Your task to perform on an android device: Open privacy settings Image 0: 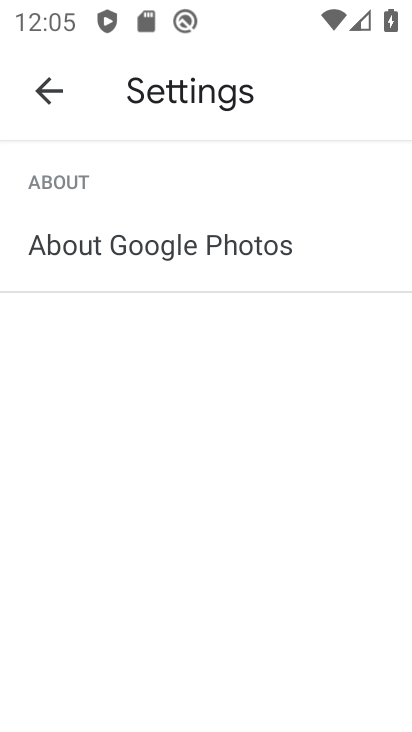
Step 0: click (49, 86)
Your task to perform on an android device: Open privacy settings Image 1: 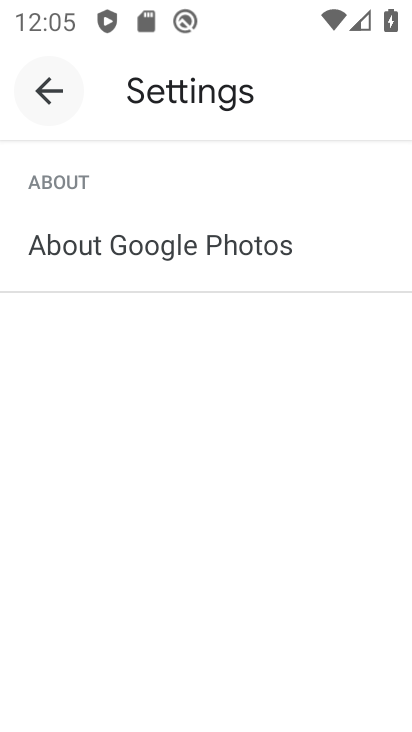
Step 1: click (51, 88)
Your task to perform on an android device: Open privacy settings Image 2: 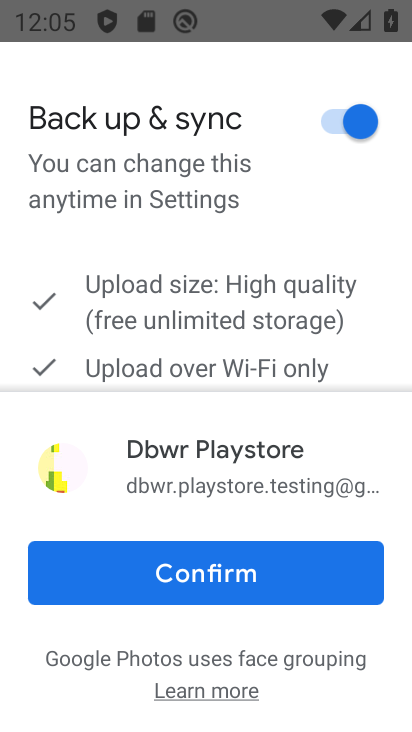
Step 2: click (226, 576)
Your task to perform on an android device: Open privacy settings Image 3: 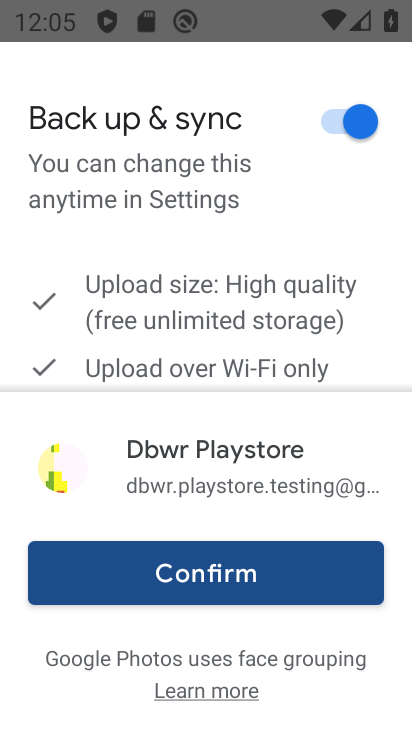
Step 3: click (224, 572)
Your task to perform on an android device: Open privacy settings Image 4: 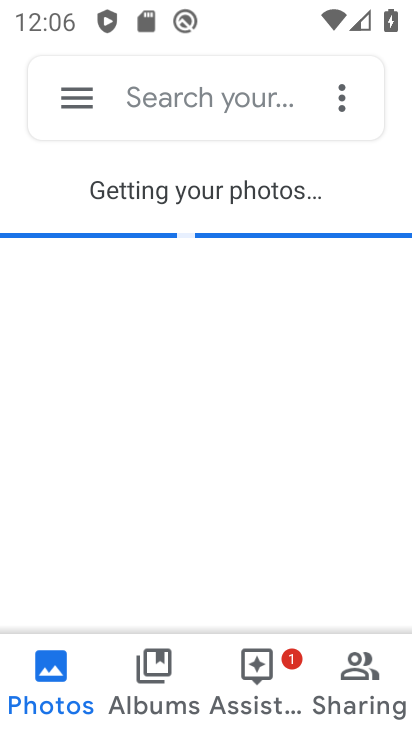
Step 4: press home button
Your task to perform on an android device: Open privacy settings Image 5: 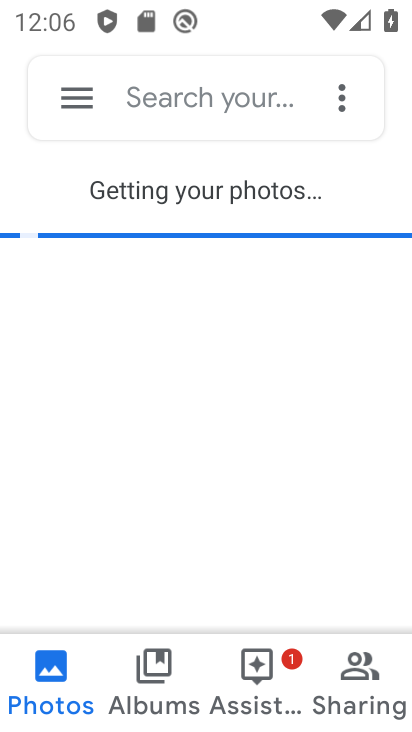
Step 5: press home button
Your task to perform on an android device: Open privacy settings Image 6: 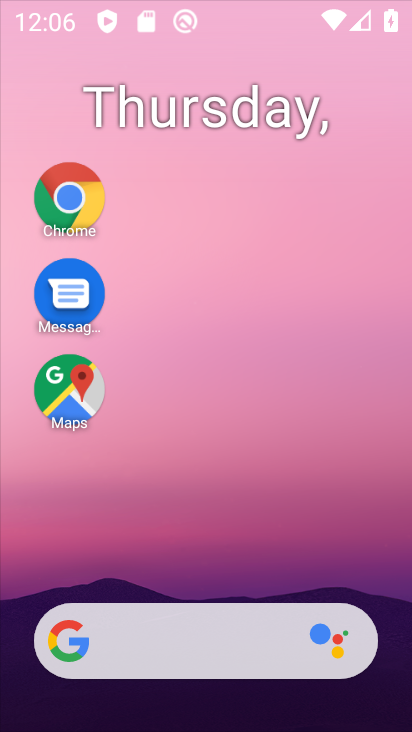
Step 6: press home button
Your task to perform on an android device: Open privacy settings Image 7: 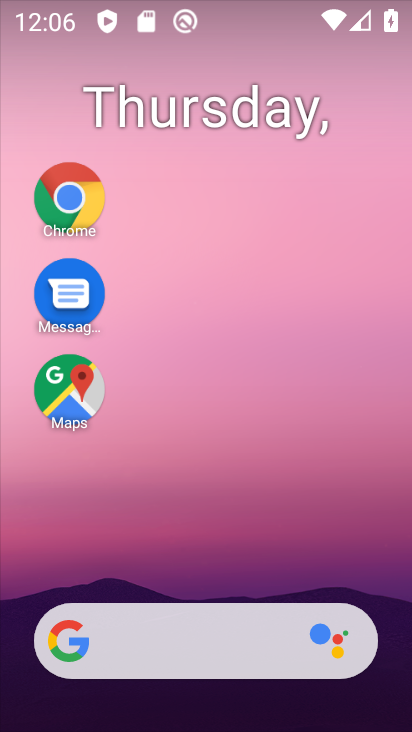
Step 7: press home button
Your task to perform on an android device: Open privacy settings Image 8: 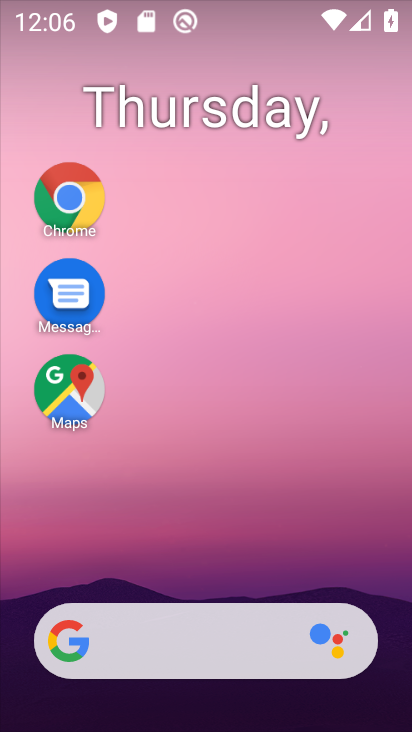
Step 8: press home button
Your task to perform on an android device: Open privacy settings Image 9: 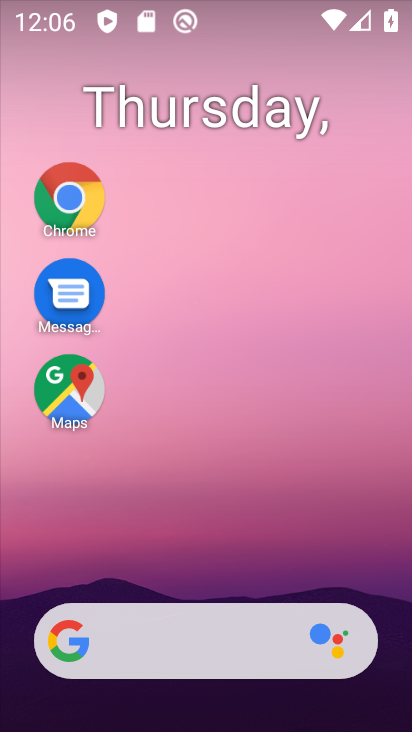
Step 9: drag from (295, 630) to (181, 103)
Your task to perform on an android device: Open privacy settings Image 10: 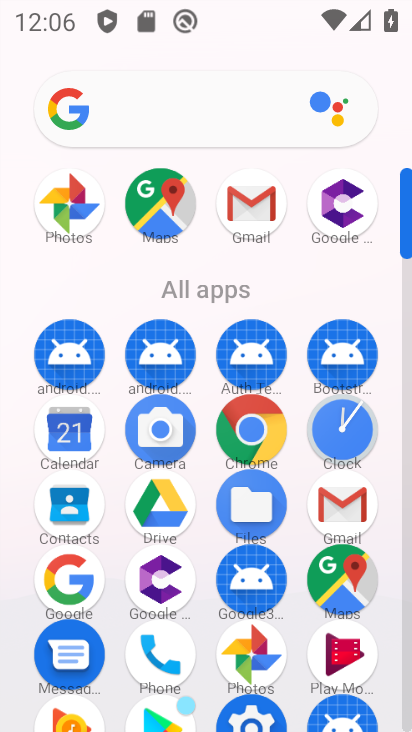
Step 10: drag from (248, 535) to (85, 7)
Your task to perform on an android device: Open privacy settings Image 11: 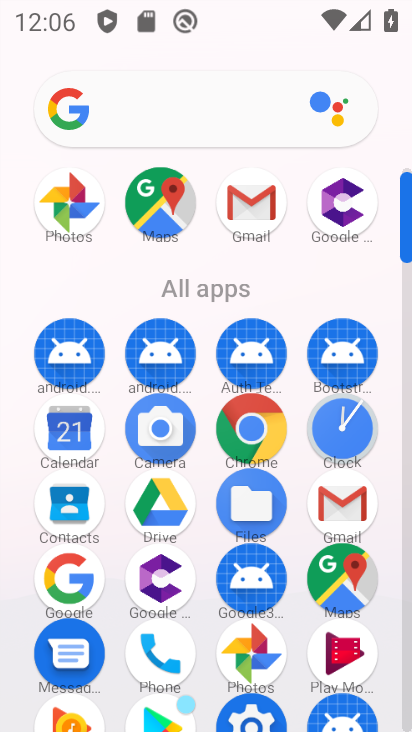
Step 11: click (405, 686)
Your task to perform on an android device: Open privacy settings Image 12: 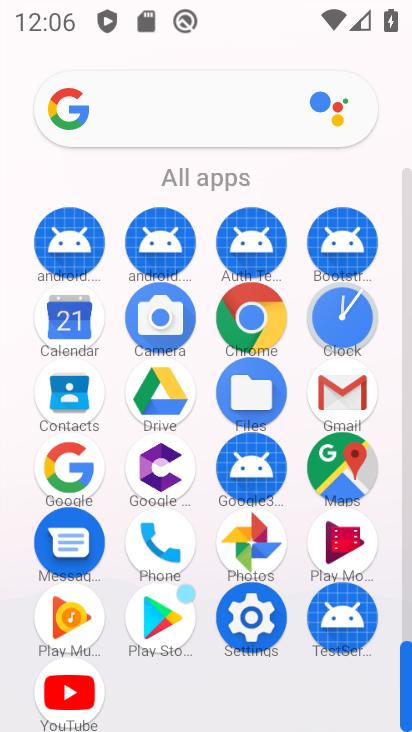
Step 12: click (250, 614)
Your task to perform on an android device: Open privacy settings Image 13: 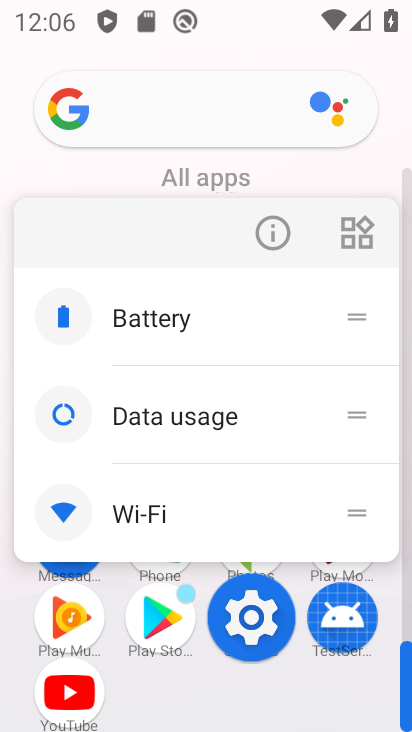
Step 13: click (251, 615)
Your task to perform on an android device: Open privacy settings Image 14: 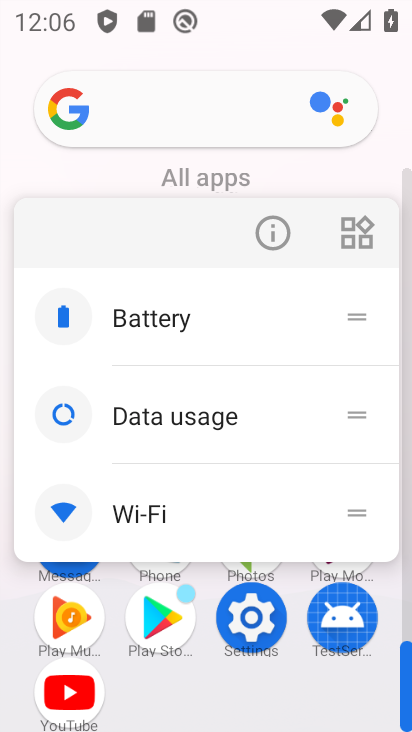
Step 14: click (255, 609)
Your task to perform on an android device: Open privacy settings Image 15: 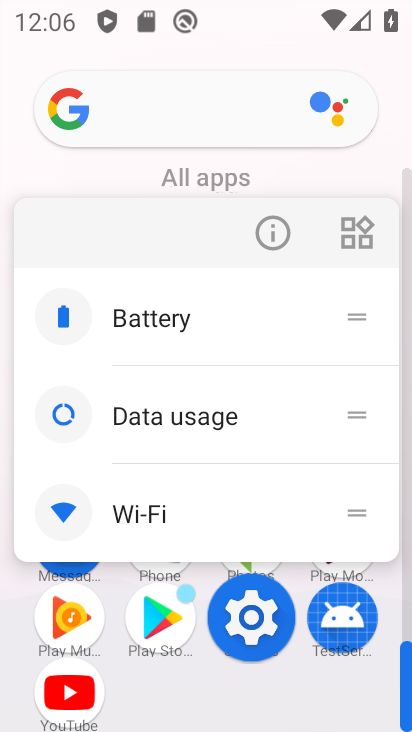
Step 15: click (255, 609)
Your task to perform on an android device: Open privacy settings Image 16: 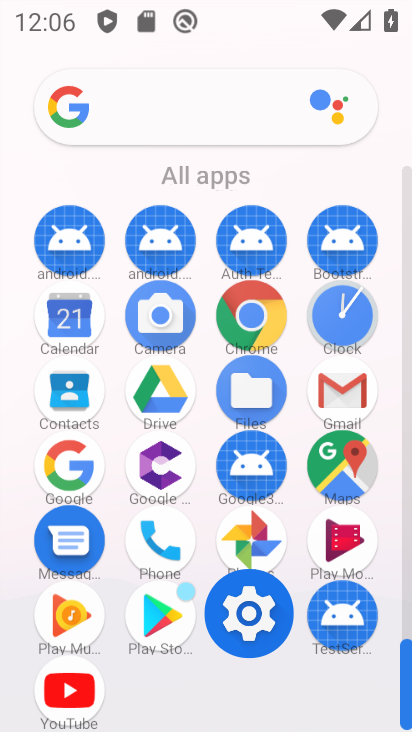
Step 16: click (252, 611)
Your task to perform on an android device: Open privacy settings Image 17: 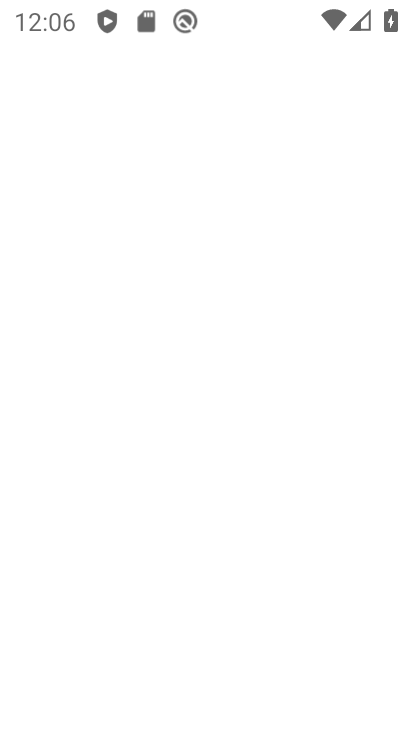
Step 17: click (254, 599)
Your task to perform on an android device: Open privacy settings Image 18: 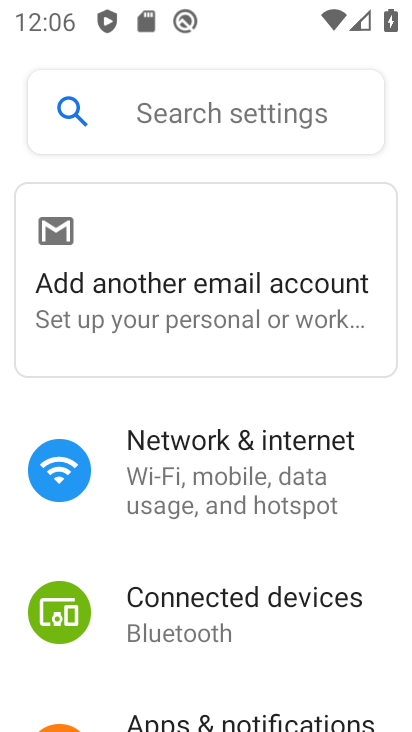
Step 18: task complete